Your task to perform on an android device: Search for sushi restaurants on Maps Image 0: 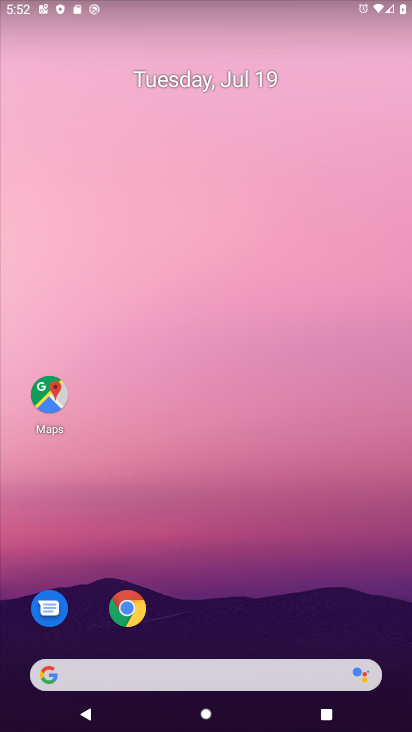
Step 0: drag from (299, 667) to (265, 16)
Your task to perform on an android device: Search for sushi restaurants on Maps Image 1: 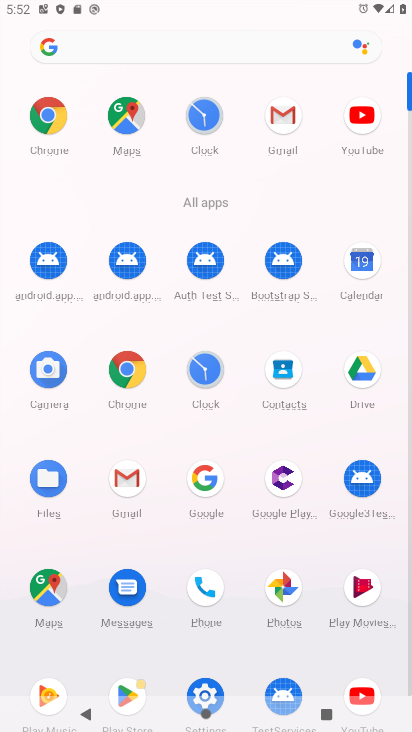
Step 1: click (41, 591)
Your task to perform on an android device: Search for sushi restaurants on Maps Image 2: 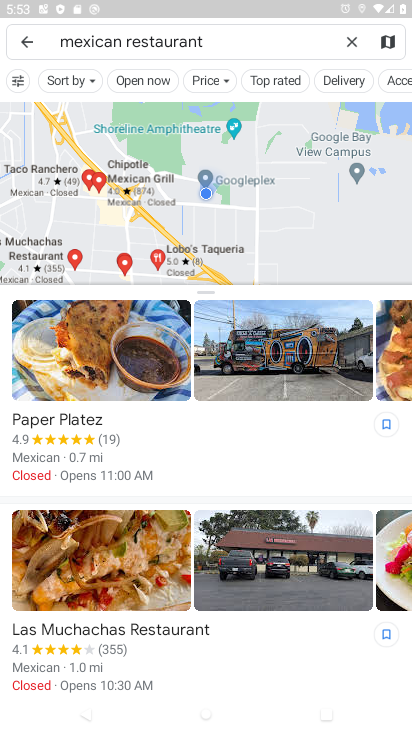
Step 2: click (353, 41)
Your task to perform on an android device: Search for sushi restaurants on Maps Image 3: 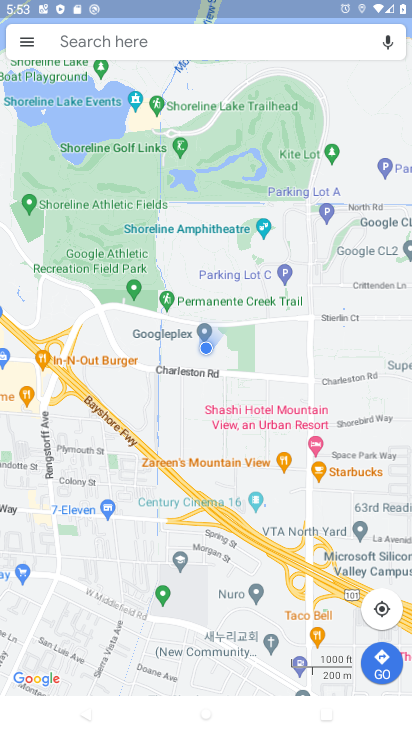
Step 3: click (275, 40)
Your task to perform on an android device: Search for sushi restaurants on Maps Image 4: 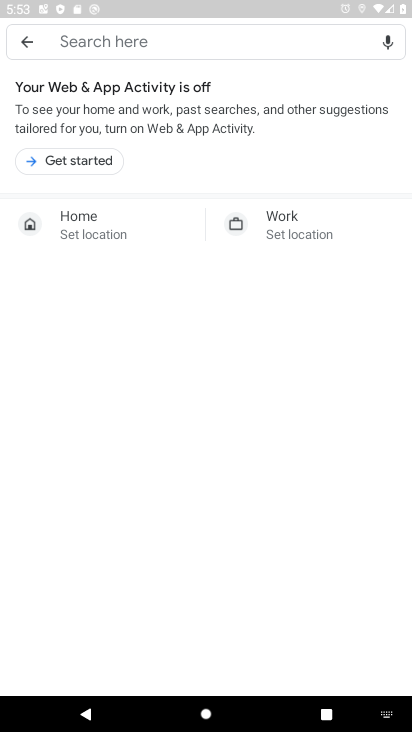
Step 4: type "sushi restaurant"
Your task to perform on an android device: Search for sushi restaurants on Maps Image 5: 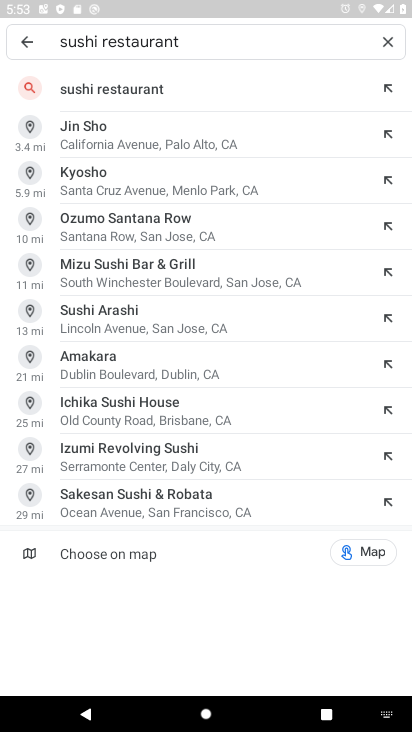
Step 5: click (99, 88)
Your task to perform on an android device: Search for sushi restaurants on Maps Image 6: 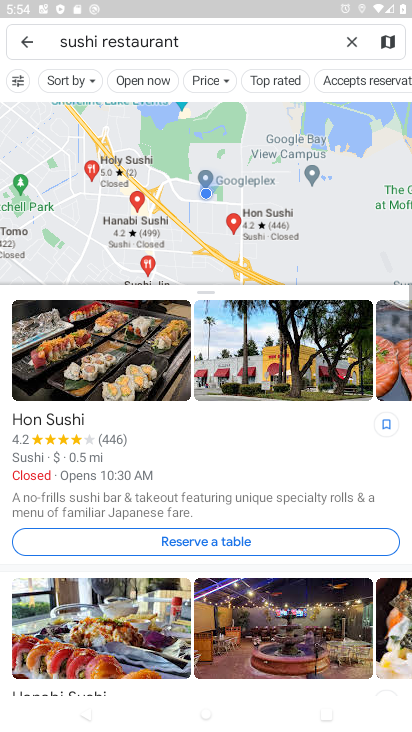
Step 6: task complete